Your task to perform on an android device: clear history in the chrome app Image 0: 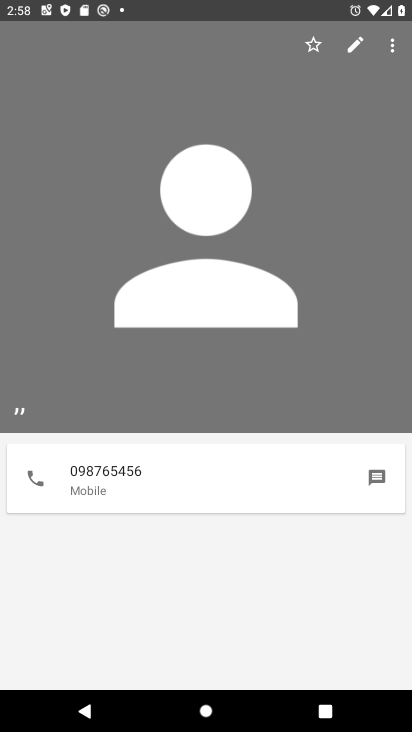
Step 0: press home button
Your task to perform on an android device: clear history in the chrome app Image 1: 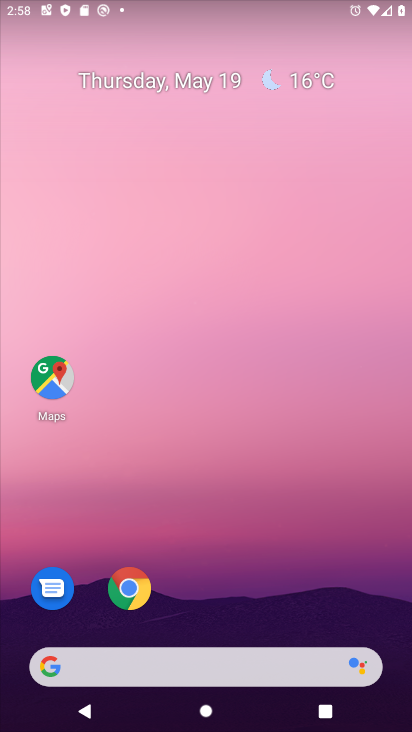
Step 1: click (131, 593)
Your task to perform on an android device: clear history in the chrome app Image 2: 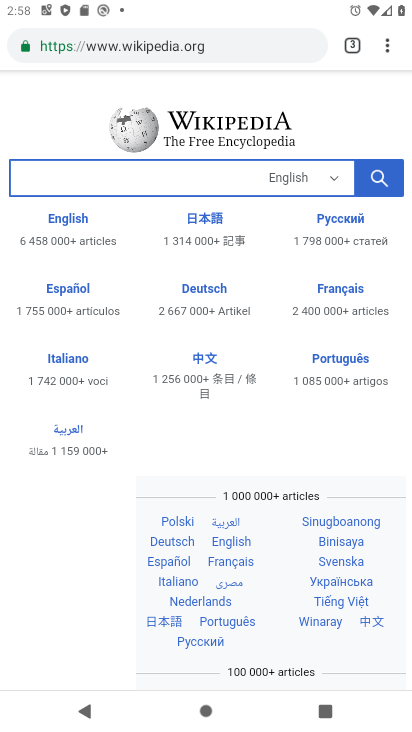
Step 2: drag from (390, 46) to (228, 256)
Your task to perform on an android device: clear history in the chrome app Image 3: 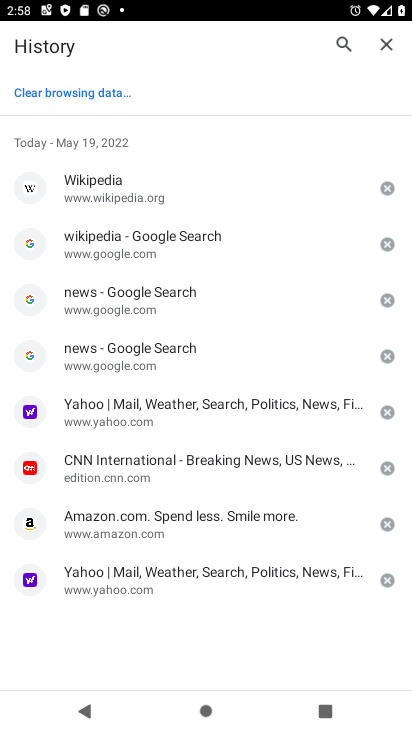
Step 3: click (116, 73)
Your task to perform on an android device: clear history in the chrome app Image 4: 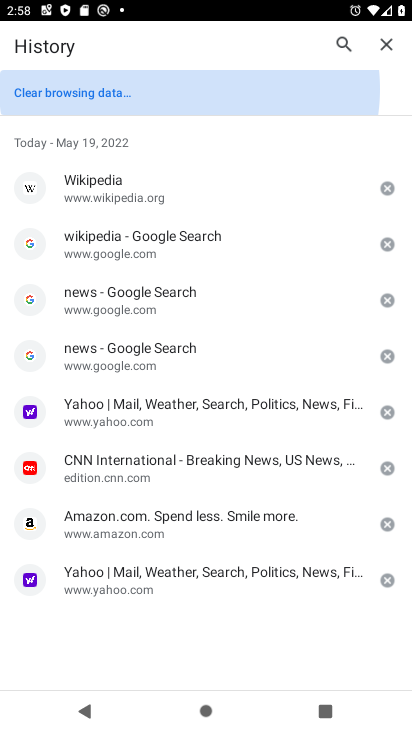
Step 4: click (106, 82)
Your task to perform on an android device: clear history in the chrome app Image 5: 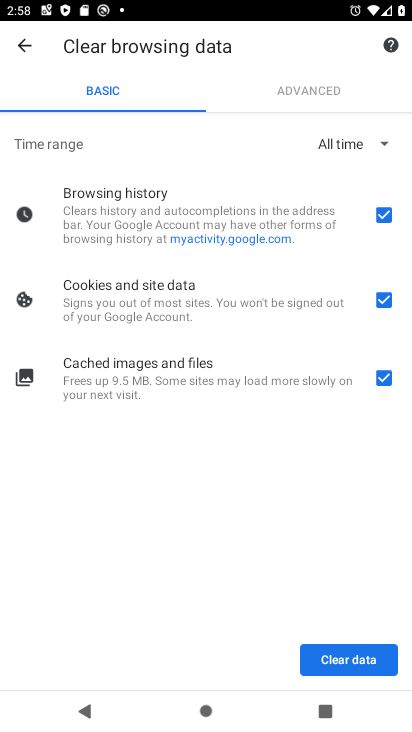
Step 5: click (350, 661)
Your task to perform on an android device: clear history in the chrome app Image 6: 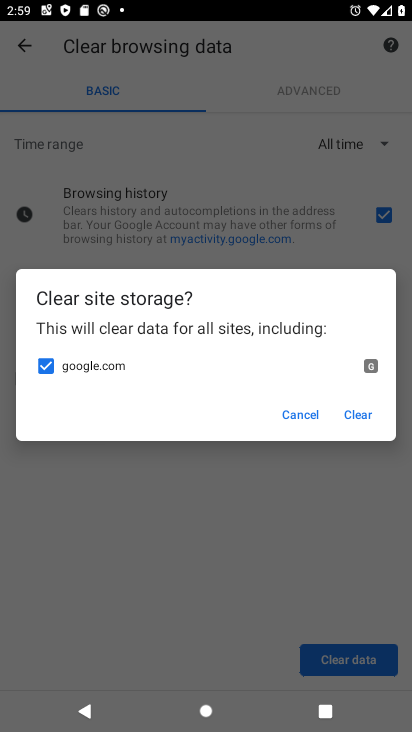
Step 6: click (356, 416)
Your task to perform on an android device: clear history in the chrome app Image 7: 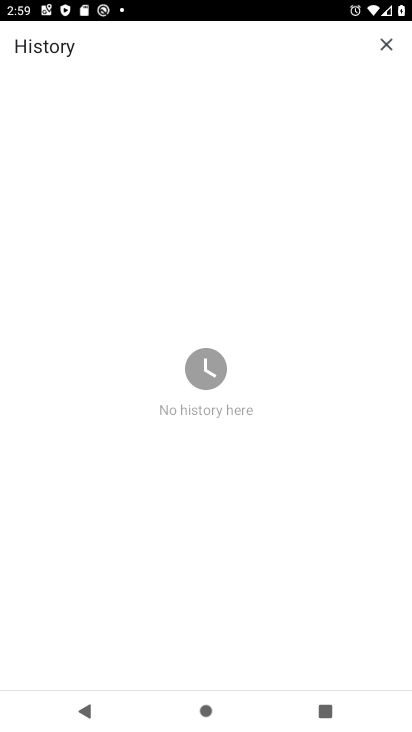
Step 7: task complete